Your task to perform on an android device: Open Google Chrome and open the bookmarks view Image 0: 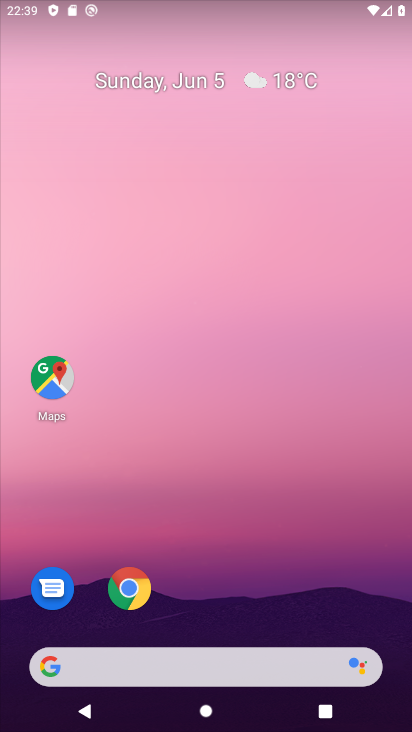
Step 0: click (337, 174)
Your task to perform on an android device: Open Google Chrome and open the bookmarks view Image 1: 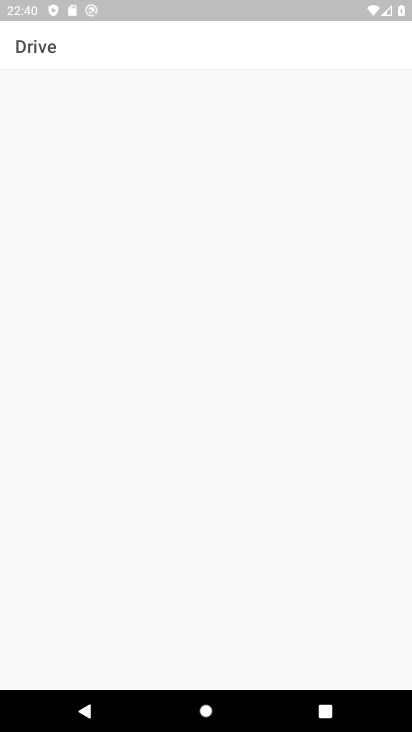
Step 1: press home button
Your task to perform on an android device: Open Google Chrome and open the bookmarks view Image 2: 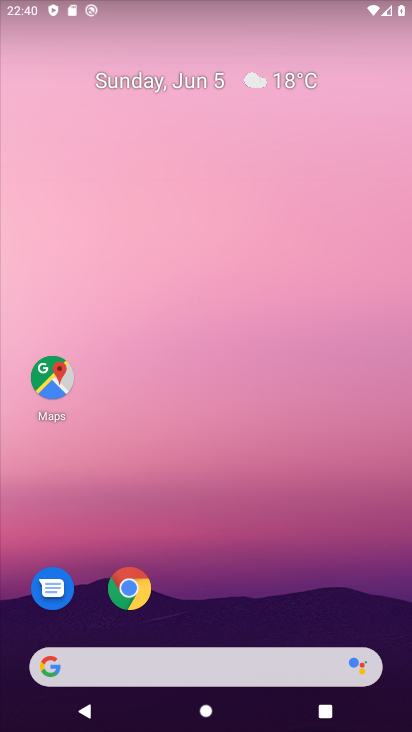
Step 2: drag from (350, 559) to (343, 106)
Your task to perform on an android device: Open Google Chrome and open the bookmarks view Image 3: 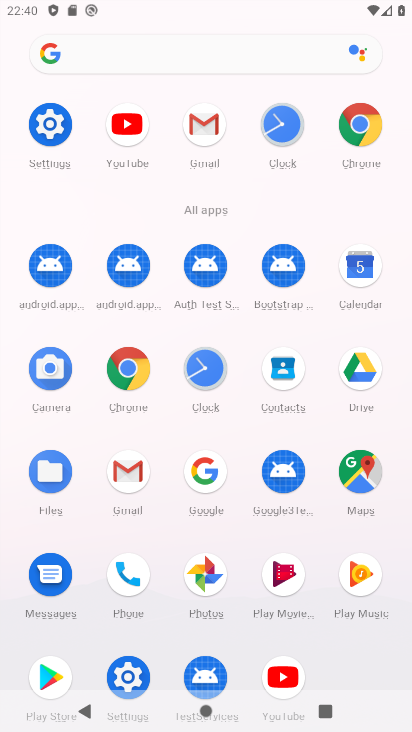
Step 3: click (132, 379)
Your task to perform on an android device: Open Google Chrome and open the bookmarks view Image 4: 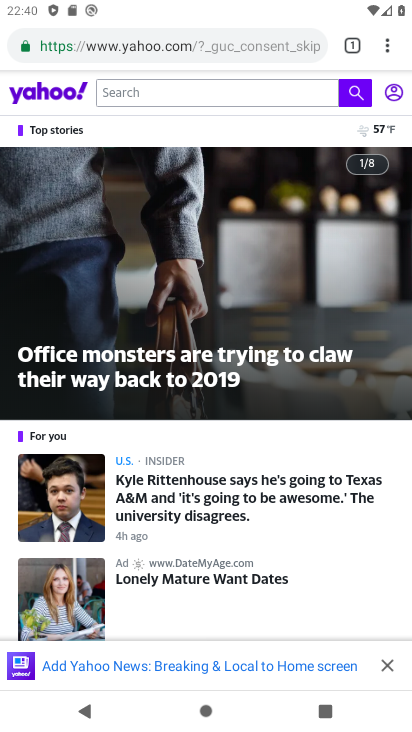
Step 4: task complete